Your task to perform on an android device: toggle notifications settings in the gmail app Image 0: 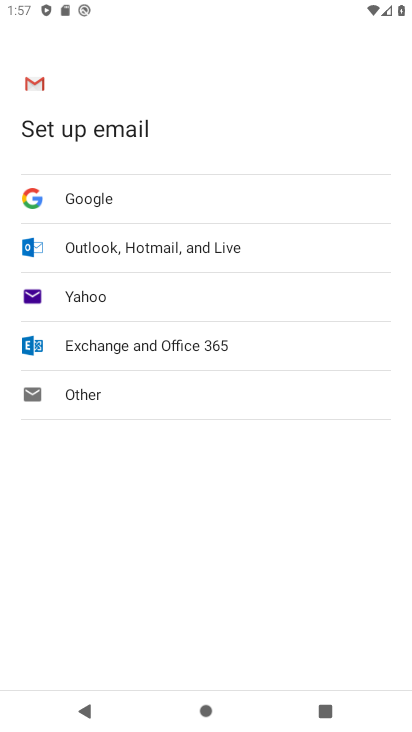
Step 0: press home button
Your task to perform on an android device: toggle notifications settings in the gmail app Image 1: 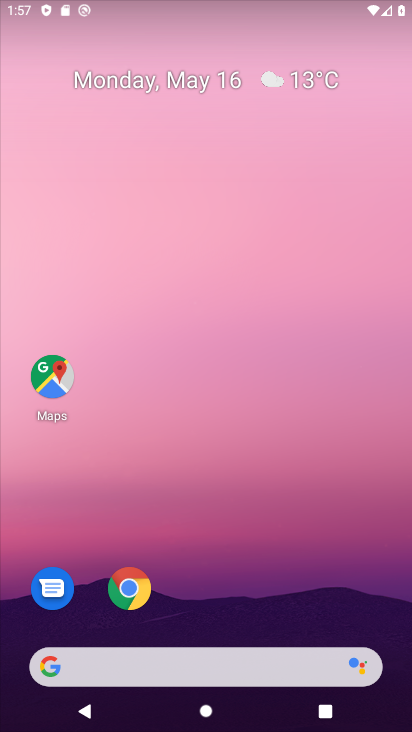
Step 1: drag from (205, 447) to (270, 156)
Your task to perform on an android device: toggle notifications settings in the gmail app Image 2: 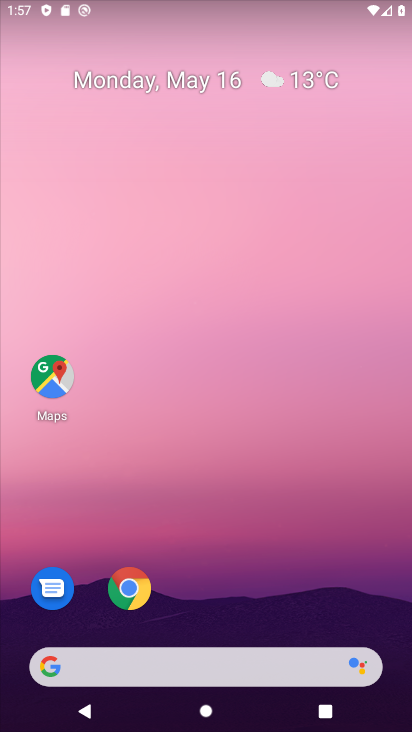
Step 2: drag from (227, 637) to (351, 140)
Your task to perform on an android device: toggle notifications settings in the gmail app Image 3: 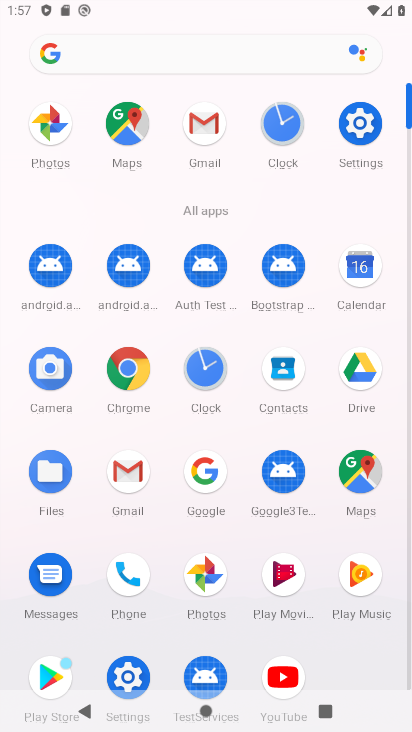
Step 3: drag from (225, 540) to (277, 341)
Your task to perform on an android device: toggle notifications settings in the gmail app Image 4: 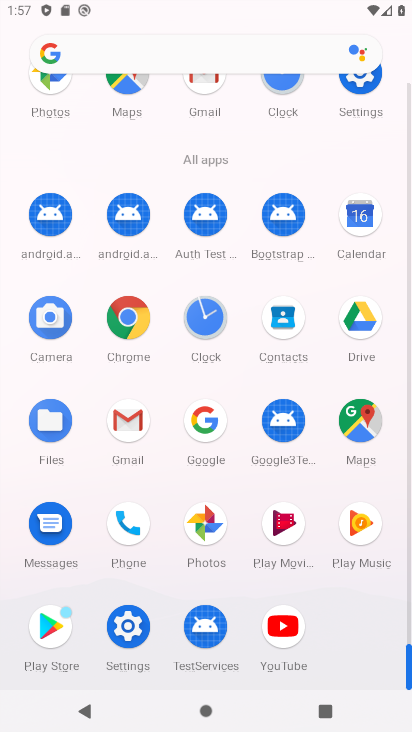
Step 4: click (134, 431)
Your task to perform on an android device: toggle notifications settings in the gmail app Image 5: 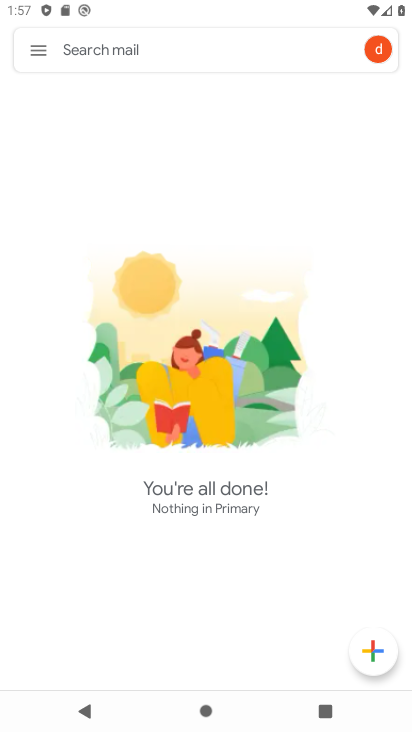
Step 5: click (45, 62)
Your task to perform on an android device: toggle notifications settings in the gmail app Image 6: 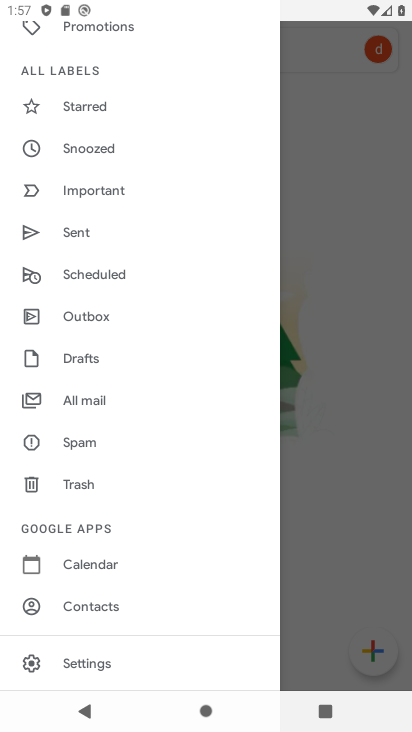
Step 6: drag from (119, 592) to (195, 351)
Your task to perform on an android device: toggle notifications settings in the gmail app Image 7: 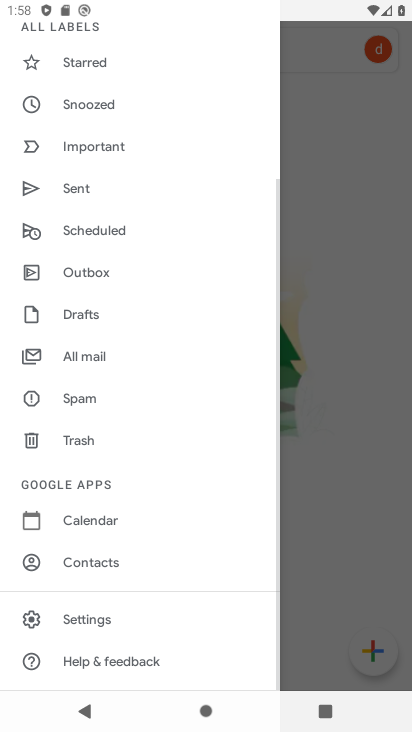
Step 7: click (136, 617)
Your task to perform on an android device: toggle notifications settings in the gmail app Image 8: 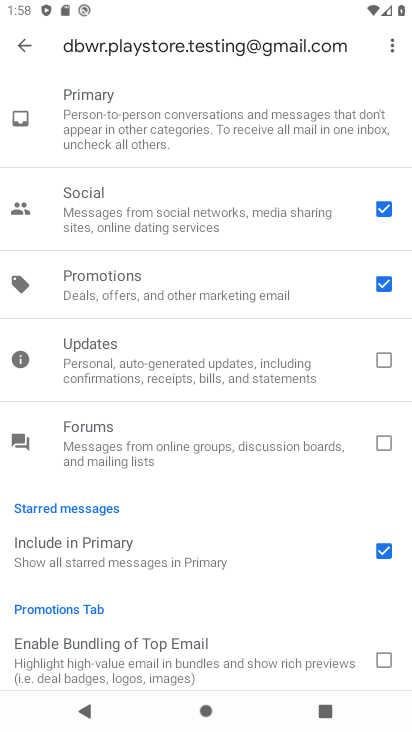
Step 8: click (30, 46)
Your task to perform on an android device: toggle notifications settings in the gmail app Image 9: 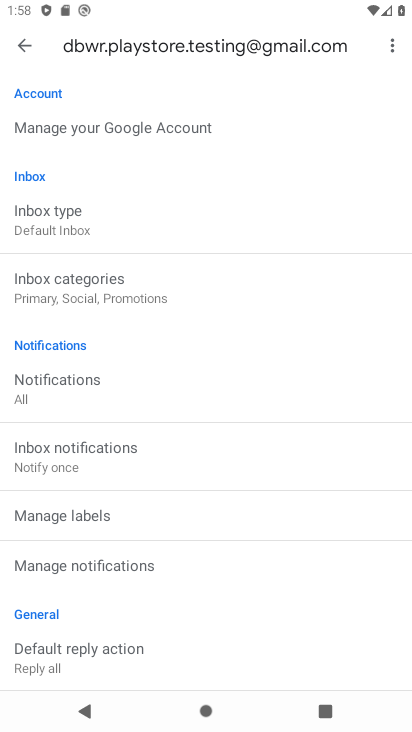
Step 9: click (155, 562)
Your task to perform on an android device: toggle notifications settings in the gmail app Image 10: 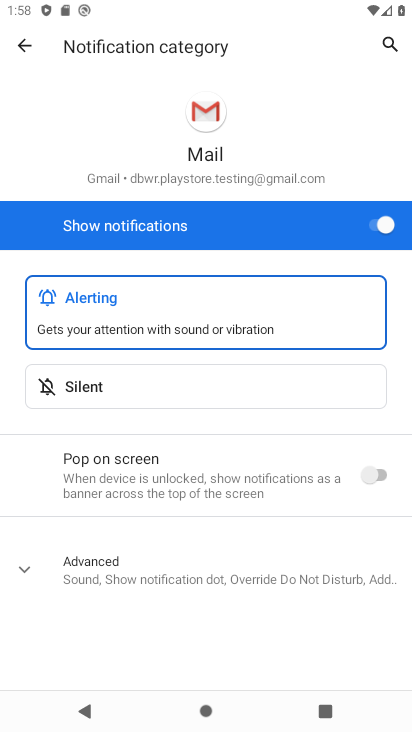
Step 10: click (374, 230)
Your task to perform on an android device: toggle notifications settings in the gmail app Image 11: 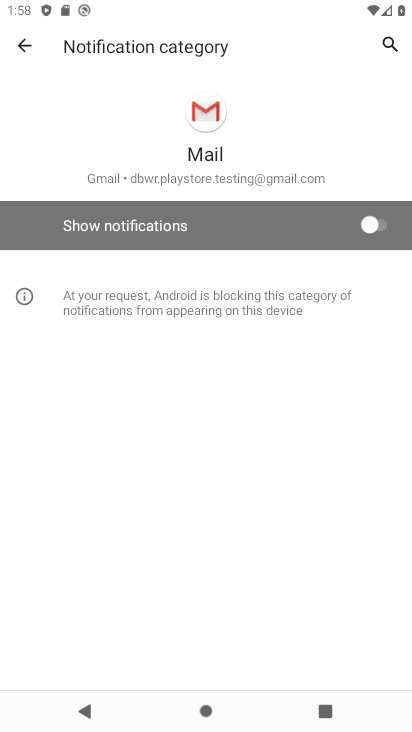
Step 11: task complete